Your task to perform on an android device: Open Google Image 0: 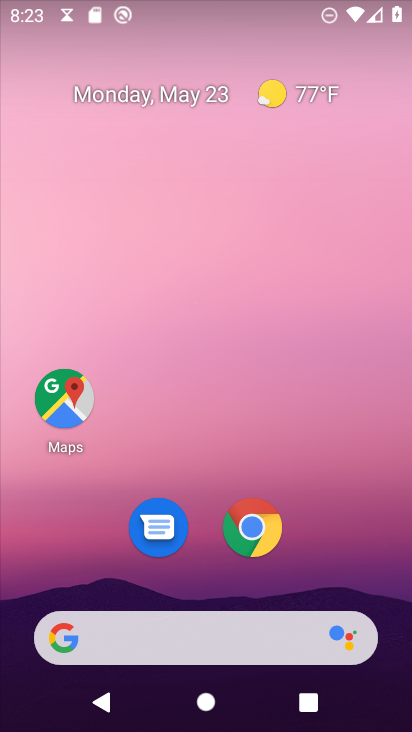
Step 0: drag from (285, 667) to (206, 6)
Your task to perform on an android device: Open Google Image 1: 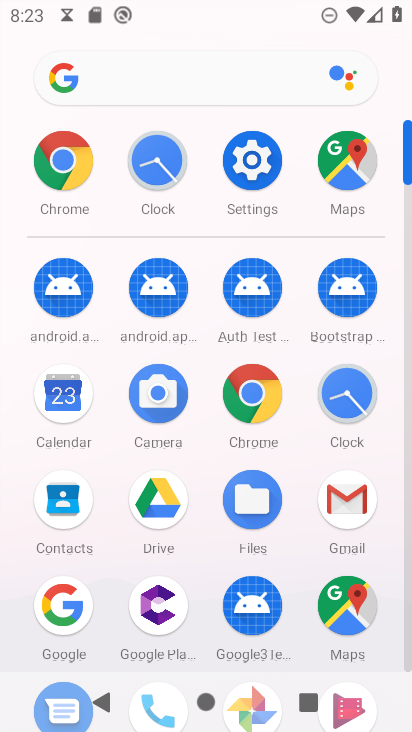
Step 1: click (68, 184)
Your task to perform on an android device: Open Google Image 2: 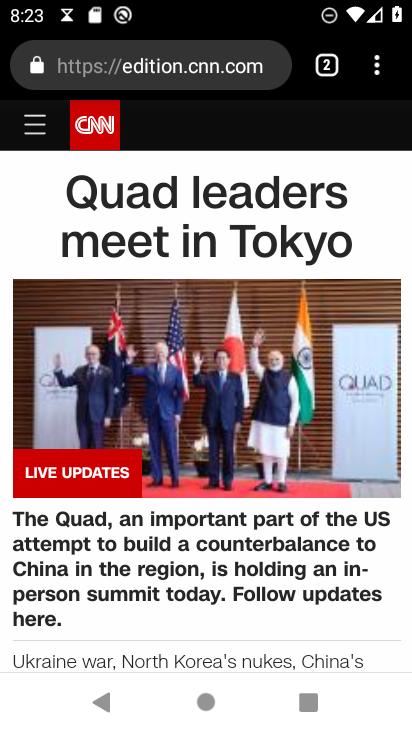
Step 2: click (316, 70)
Your task to perform on an android device: Open Google Image 3: 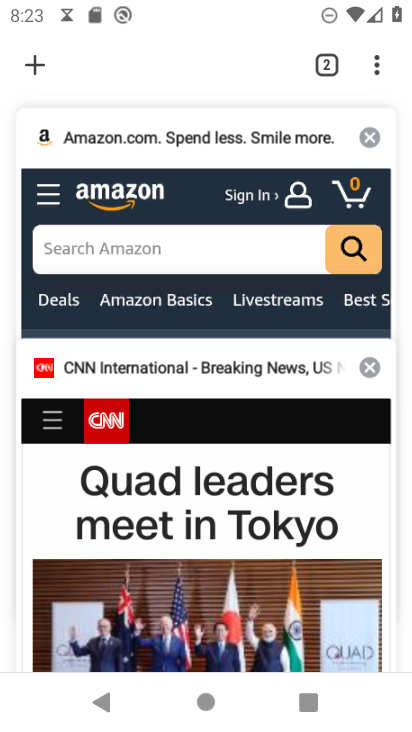
Step 3: click (33, 69)
Your task to perform on an android device: Open Google Image 4: 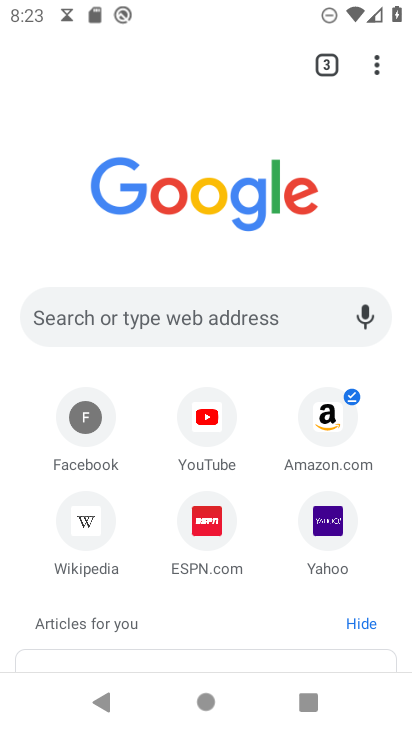
Step 4: task complete